Your task to perform on an android device: Do I have any events this weekend? Image 0: 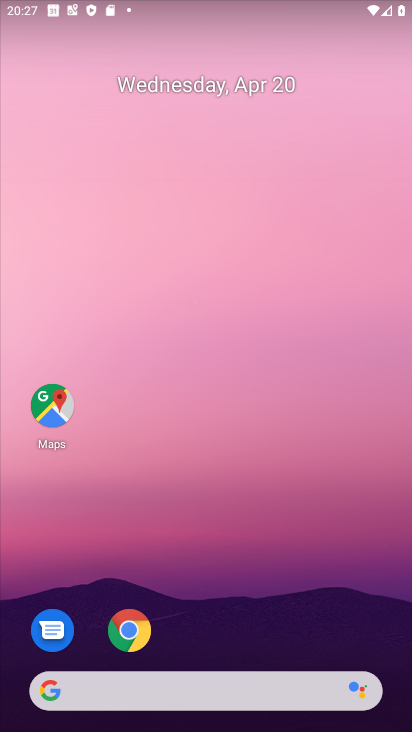
Step 0: drag from (207, 603) to (136, 43)
Your task to perform on an android device: Do I have any events this weekend? Image 1: 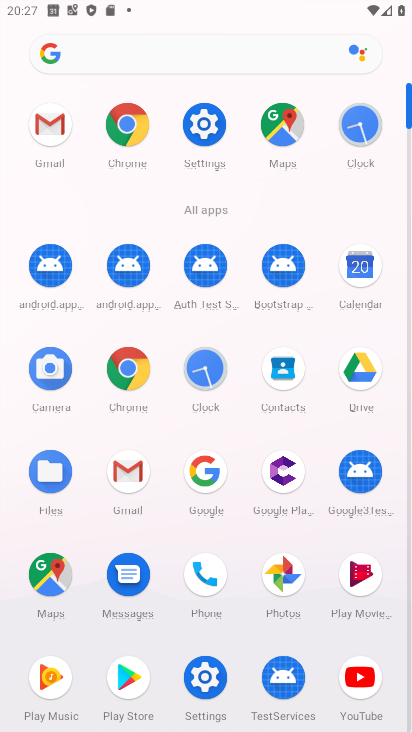
Step 1: click (362, 271)
Your task to perform on an android device: Do I have any events this weekend? Image 2: 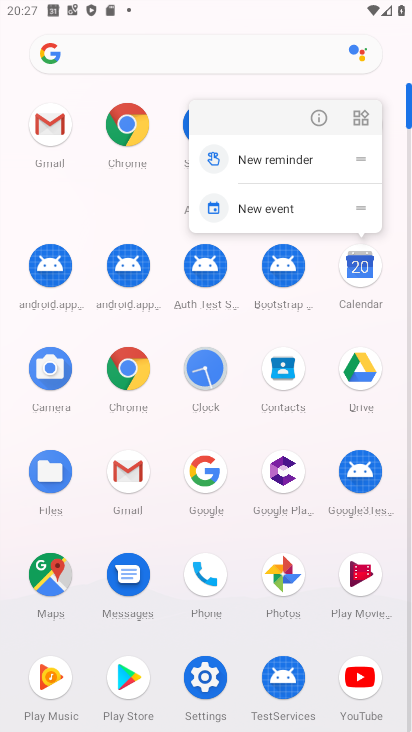
Step 2: click (362, 271)
Your task to perform on an android device: Do I have any events this weekend? Image 3: 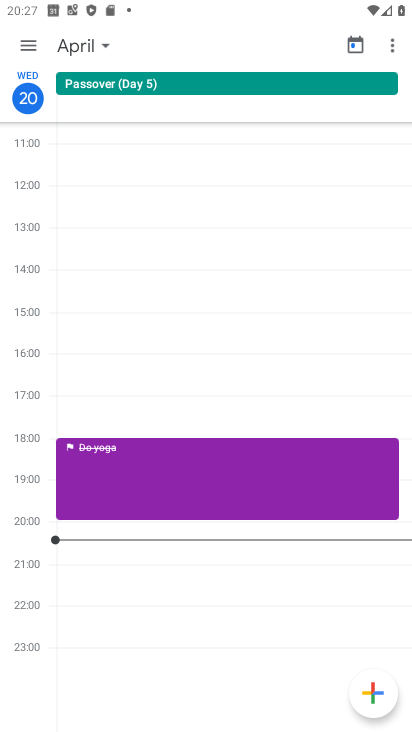
Step 3: click (90, 42)
Your task to perform on an android device: Do I have any events this weekend? Image 4: 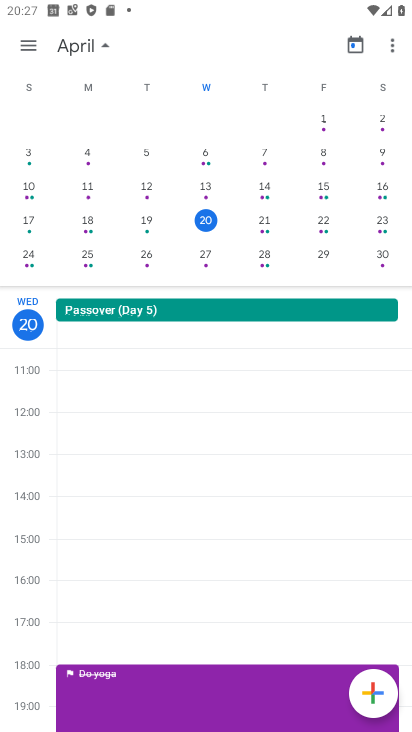
Step 4: click (382, 218)
Your task to perform on an android device: Do I have any events this weekend? Image 5: 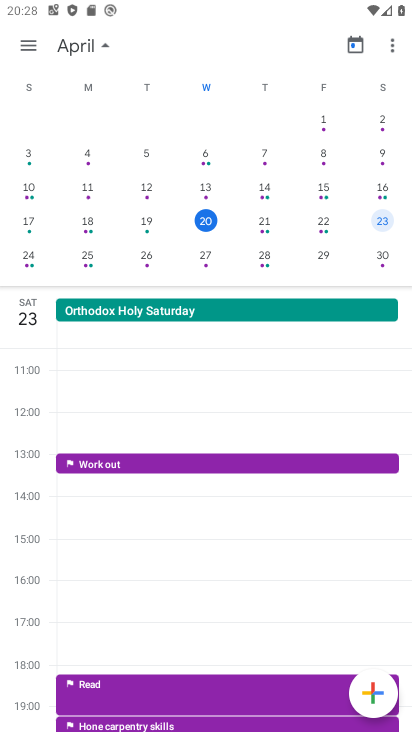
Step 5: drag from (278, 590) to (225, 297)
Your task to perform on an android device: Do I have any events this weekend? Image 6: 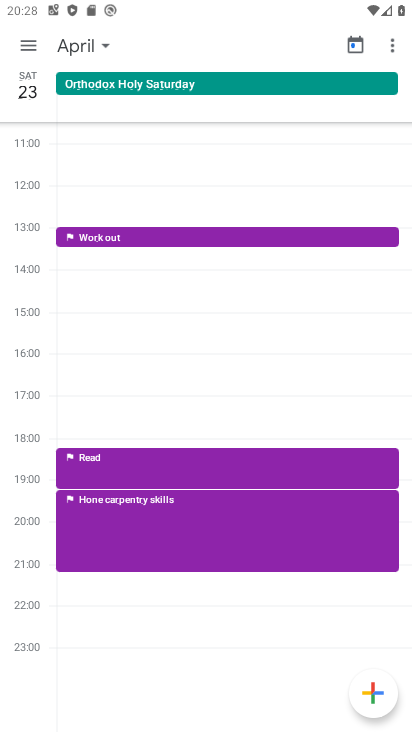
Step 6: drag from (263, 613) to (239, 538)
Your task to perform on an android device: Do I have any events this weekend? Image 7: 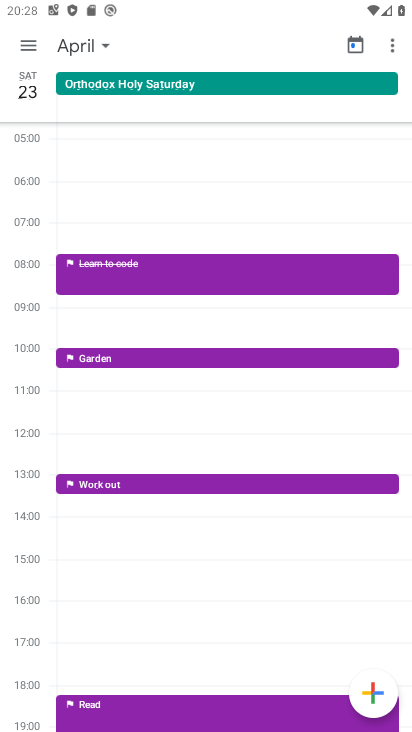
Step 7: click (23, 46)
Your task to perform on an android device: Do I have any events this weekend? Image 8: 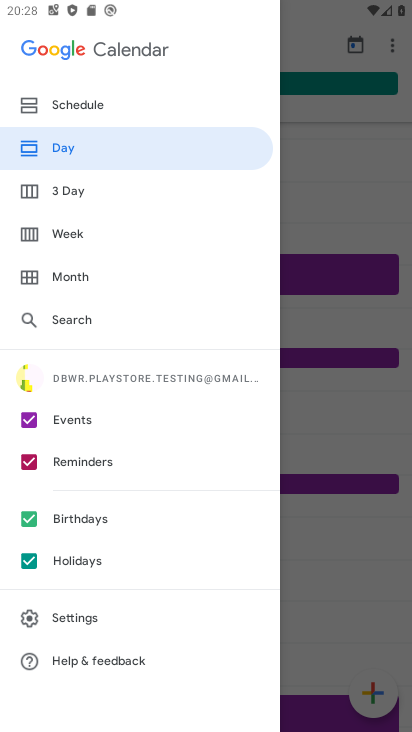
Step 8: click (78, 187)
Your task to perform on an android device: Do I have any events this weekend? Image 9: 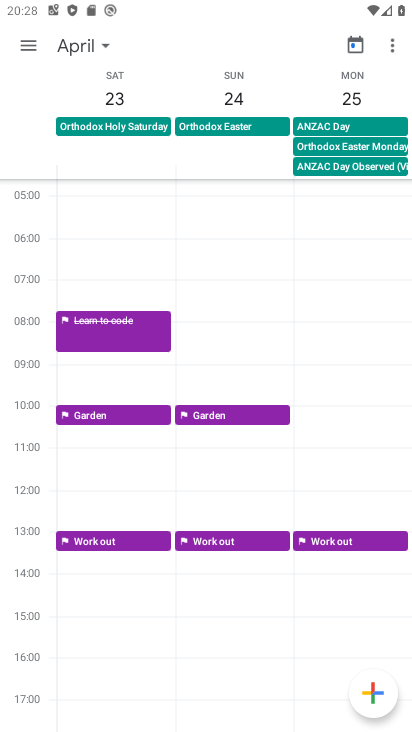
Step 9: click (100, 42)
Your task to perform on an android device: Do I have any events this weekend? Image 10: 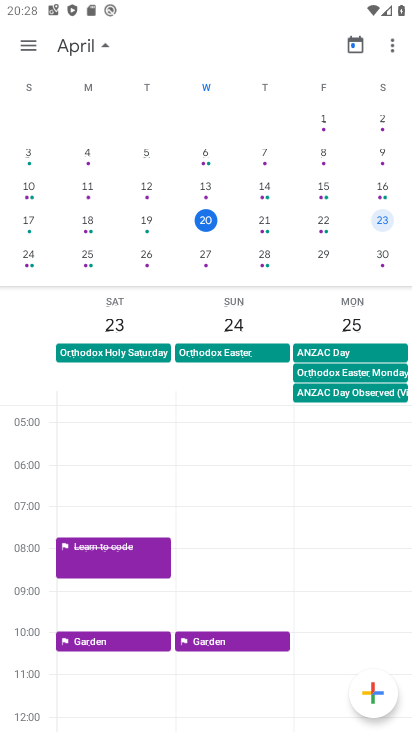
Step 10: click (328, 225)
Your task to perform on an android device: Do I have any events this weekend? Image 11: 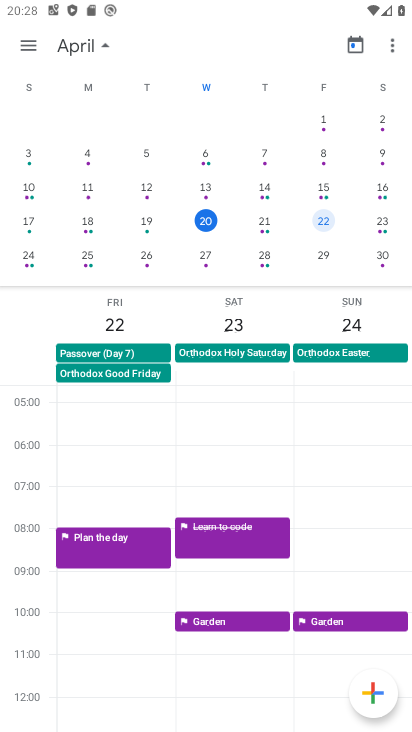
Step 11: task complete